Your task to perform on an android device: open app "PUBG MOBILE" Image 0: 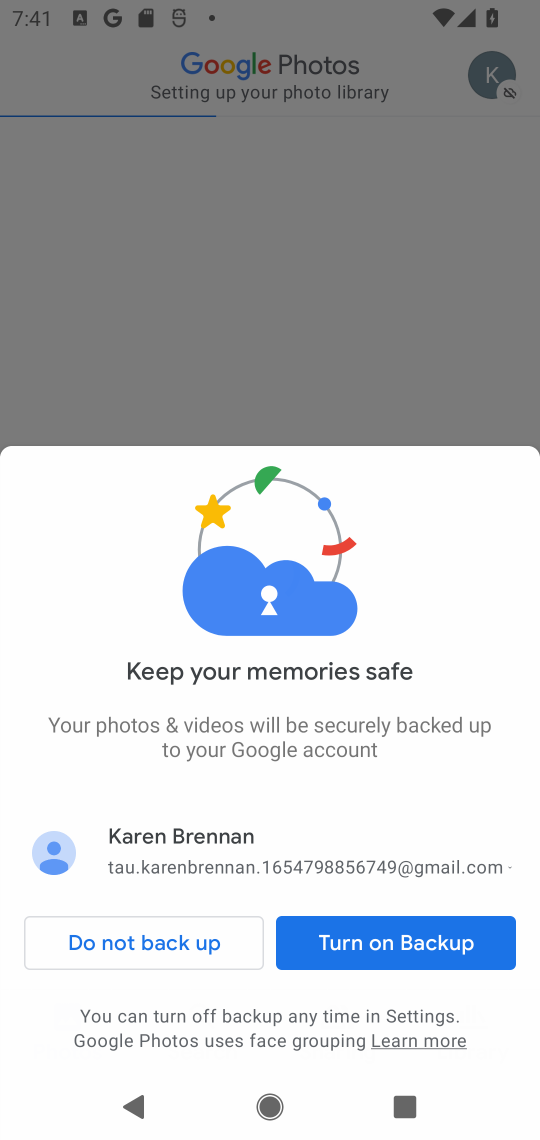
Step 0: press home button
Your task to perform on an android device: open app "PUBG MOBILE" Image 1: 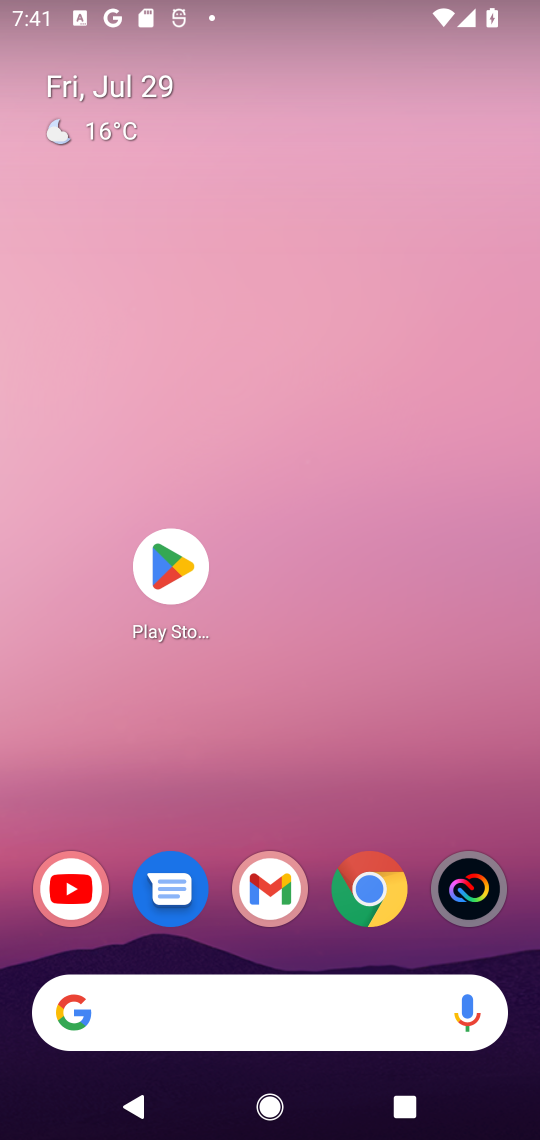
Step 1: click (158, 543)
Your task to perform on an android device: open app "PUBG MOBILE" Image 2: 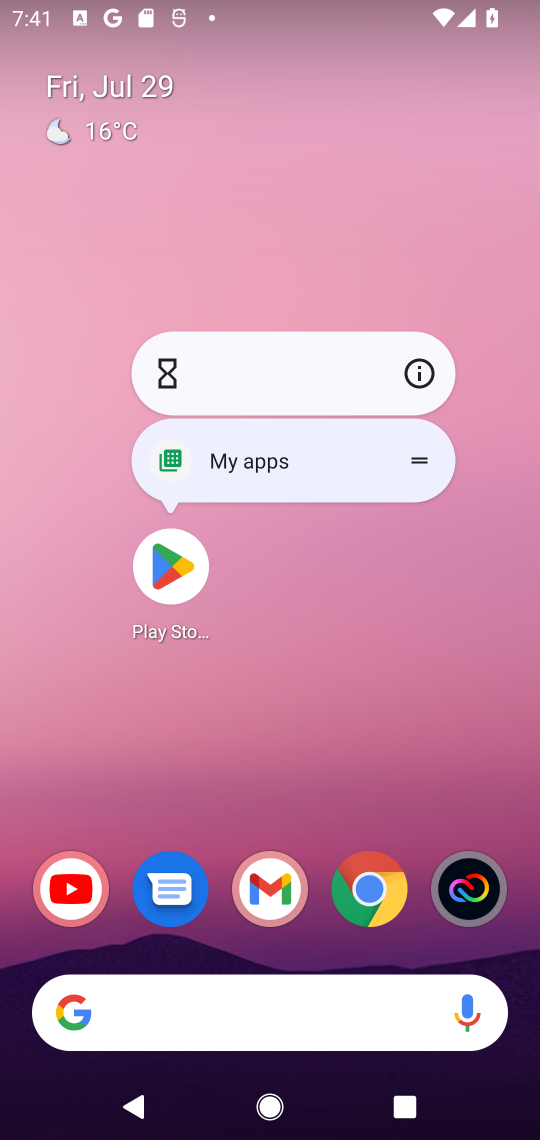
Step 2: click (177, 565)
Your task to perform on an android device: open app "PUBG MOBILE" Image 3: 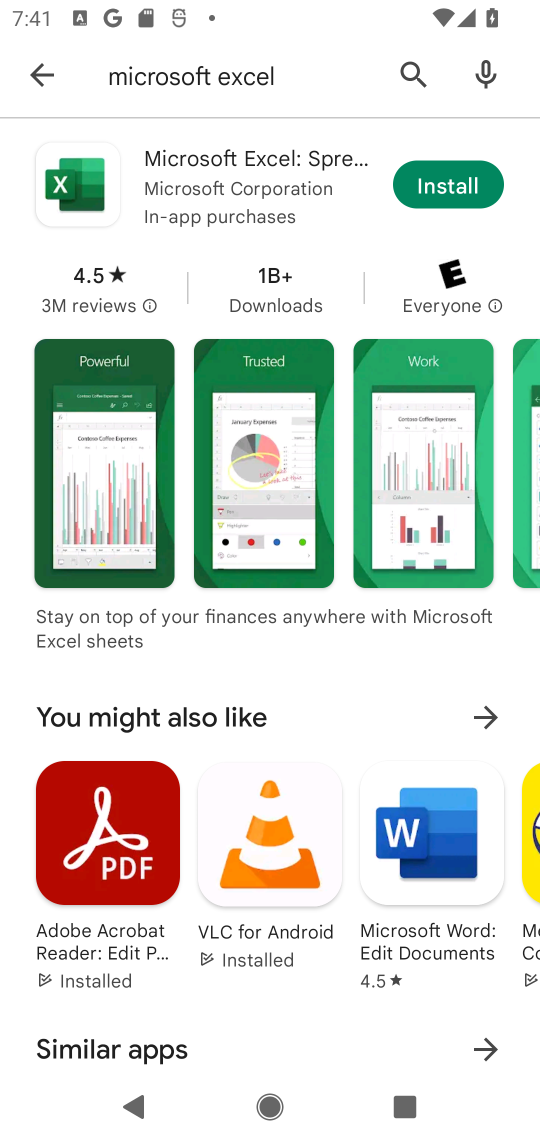
Step 3: click (406, 68)
Your task to perform on an android device: open app "PUBG MOBILE" Image 4: 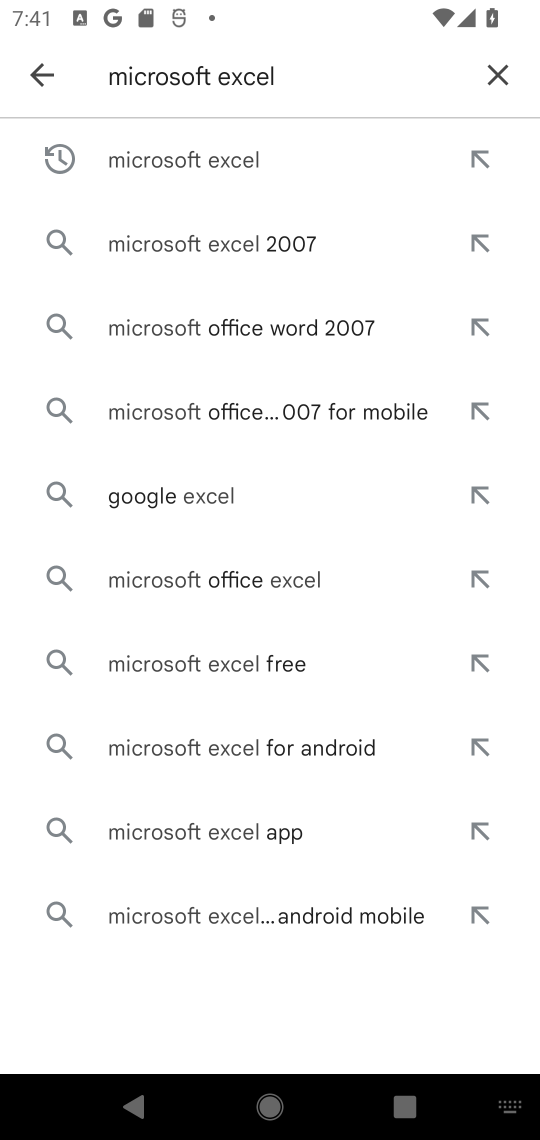
Step 4: click (485, 70)
Your task to perform on an android device: open app "PUBG MOBILE" Image 5: 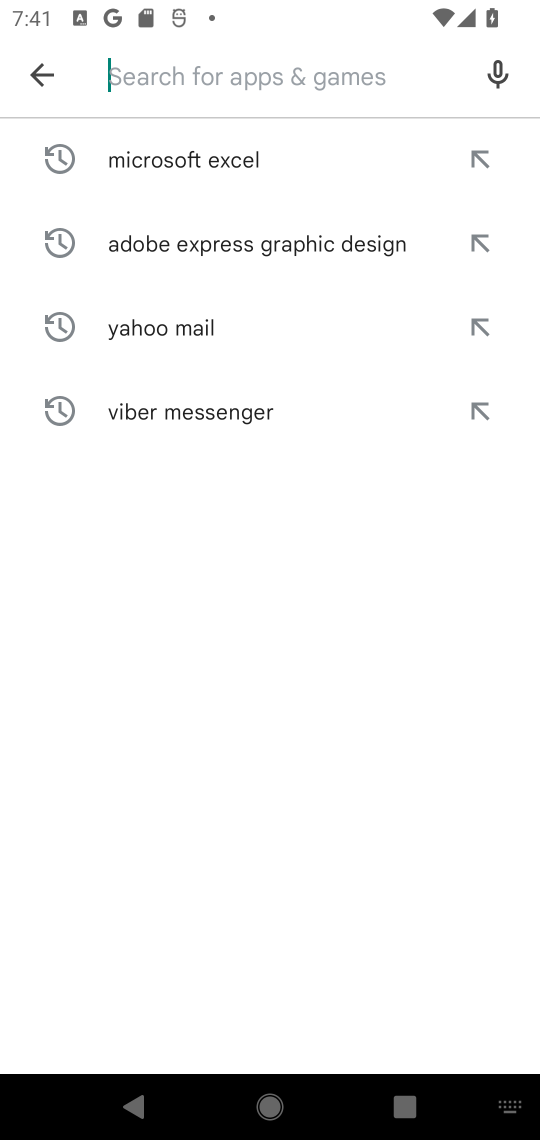
Step 5: type "PUBG MOBILE"
Your task to perform on an android device: open app "PUBG MOBILE" Image 6: 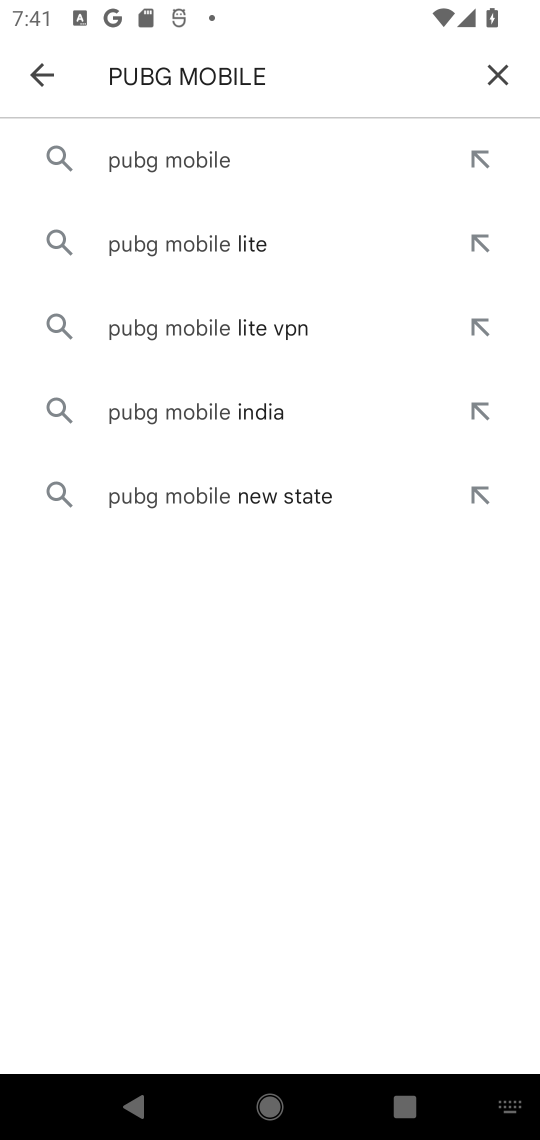
Step 6: click (168, 161)
Your task to perform on an android device: open app "PUBG MOBILE" Image 7: 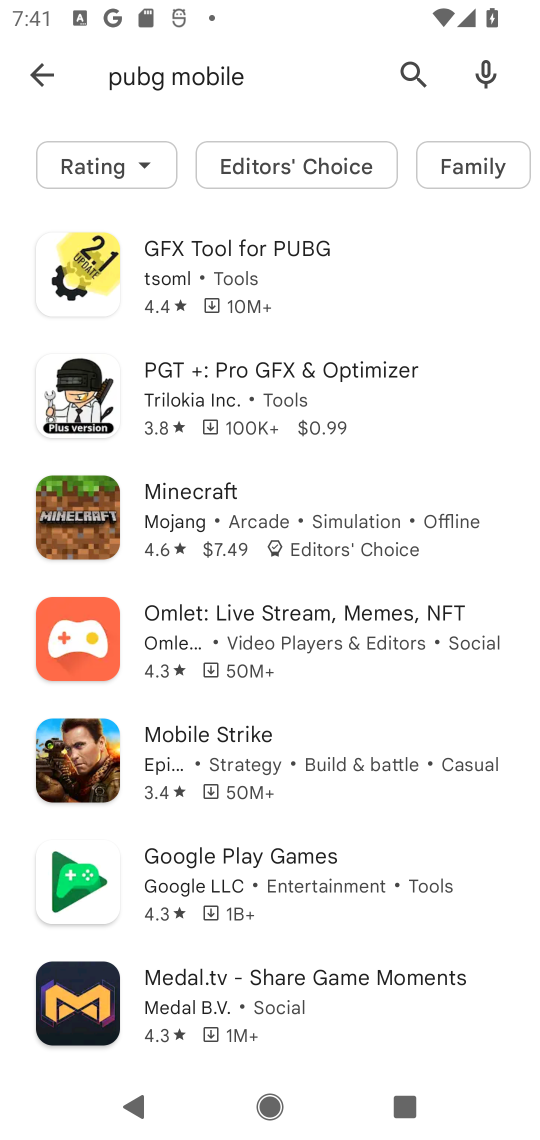
Step 7: task complete